Your task to perform on an android device: toggle show notifications on the lock screen Image 0: 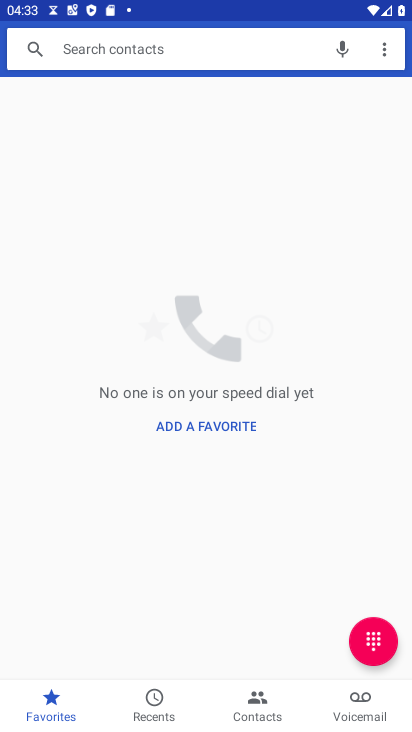
Step 0: press home button
Your task to perform on an android device: toggle show notifications on the lock screen Image 1: 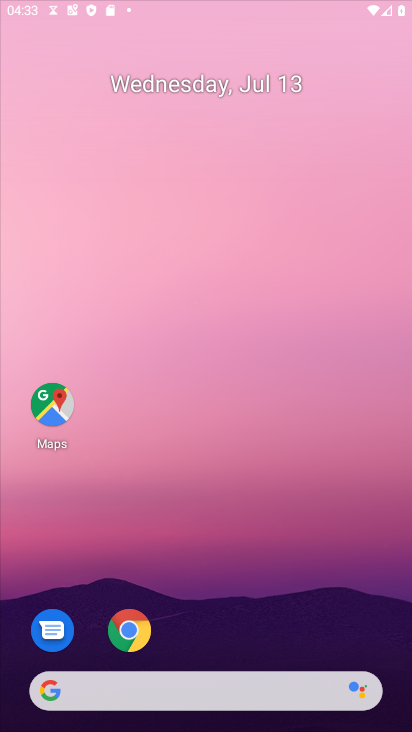
Step 1: drag from (169, 629) to (223, 12)
Your task to perform on an android device: toggle show notifications on the lock screen Image 2: 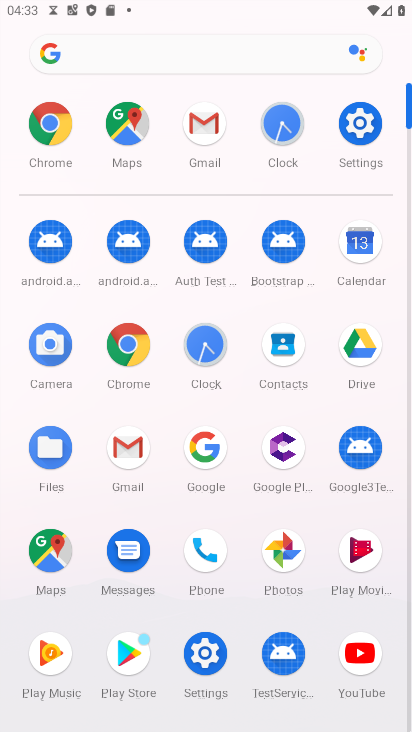
Step 2: click (377, 124)
Your task to perform on an android device: toggle show notifications on the lock screen Image 3: 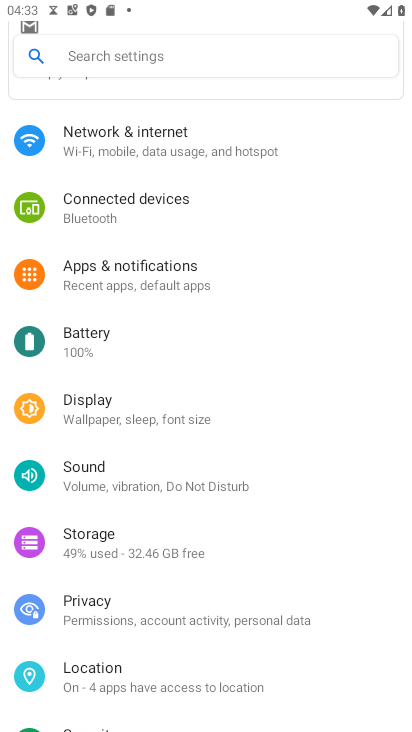
Step 3: click (191, 270)
Your task to perform on an android device: toggle show notifications on the lock screen Image 4: 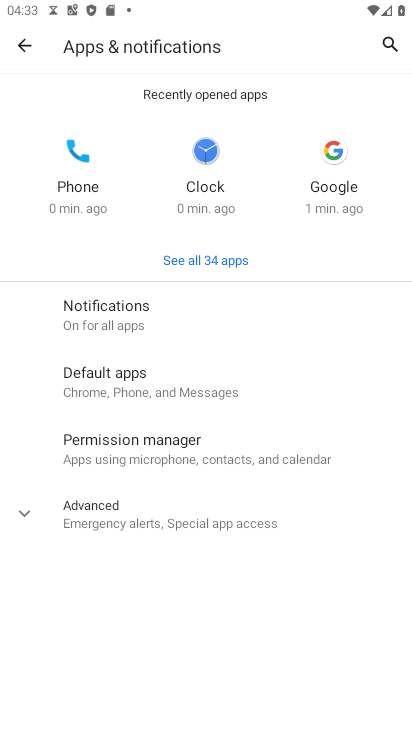
Step 4: click (151, 325)
Your task to perform on an android device: toggle show notifications on the lock screen Image 5: 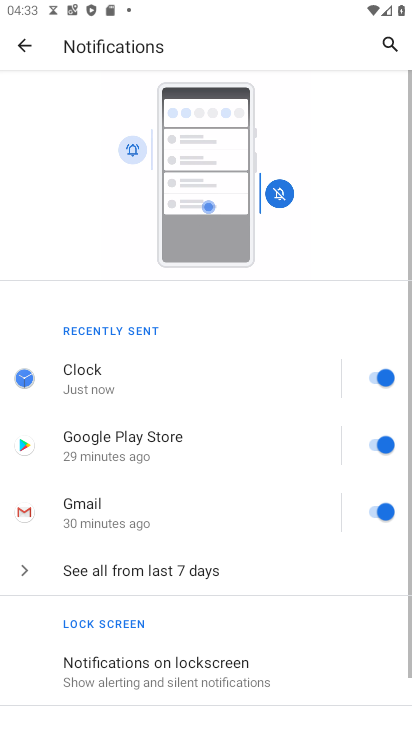
Step 5: click (202, 676)
Your task to perform on an android device: toggle show notifications on the lock screen Image 6: 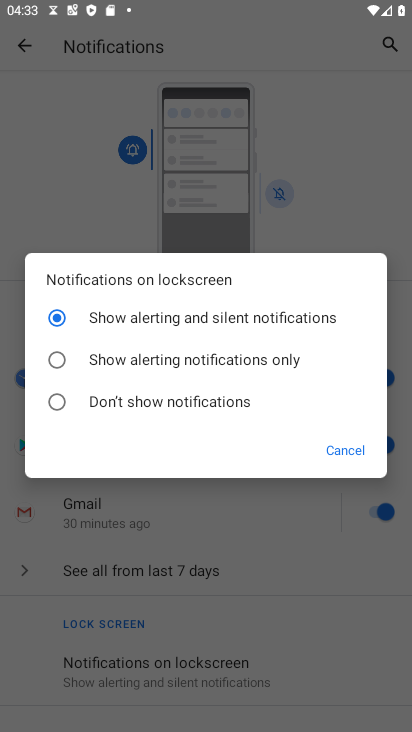
Step 6: click (55, 406)
Your task to perform on an android device: toggle show notifications on the lock screen Image 7: 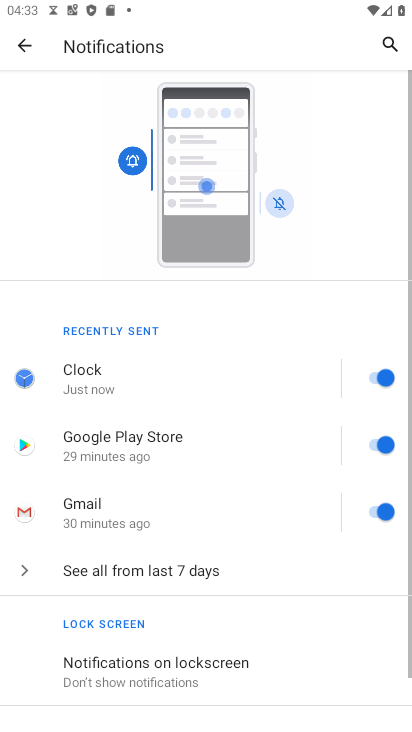
Step 7: task complete